Your task to perform on an android device: Search for the best rated 3d printer on Amazon. Image 0: 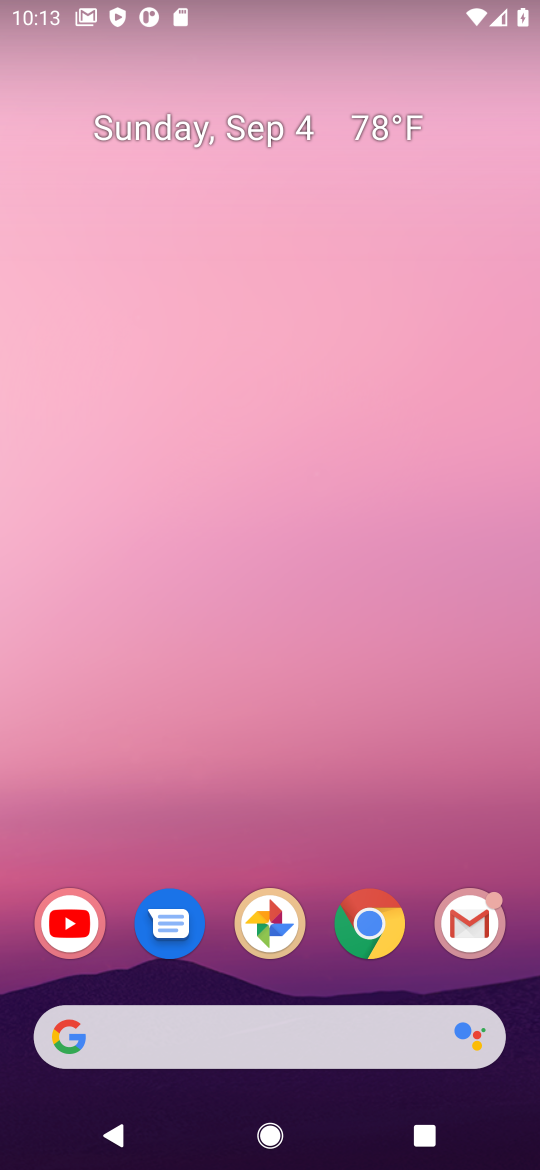
Step 0: click (350, 917)
Your task to perform on an android device: Search for the best rated 3d printer on Amazon. Image 1: 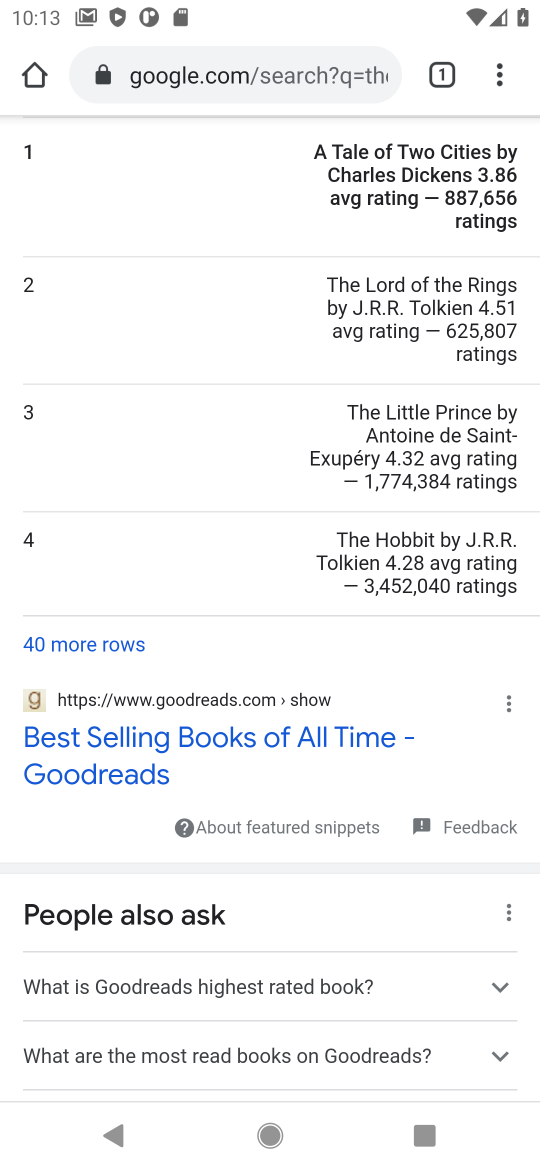
Step 1: click (204, 50)
Your task to perform on an android device: Search for the best rated 3d printer on Amazon. Image 2: 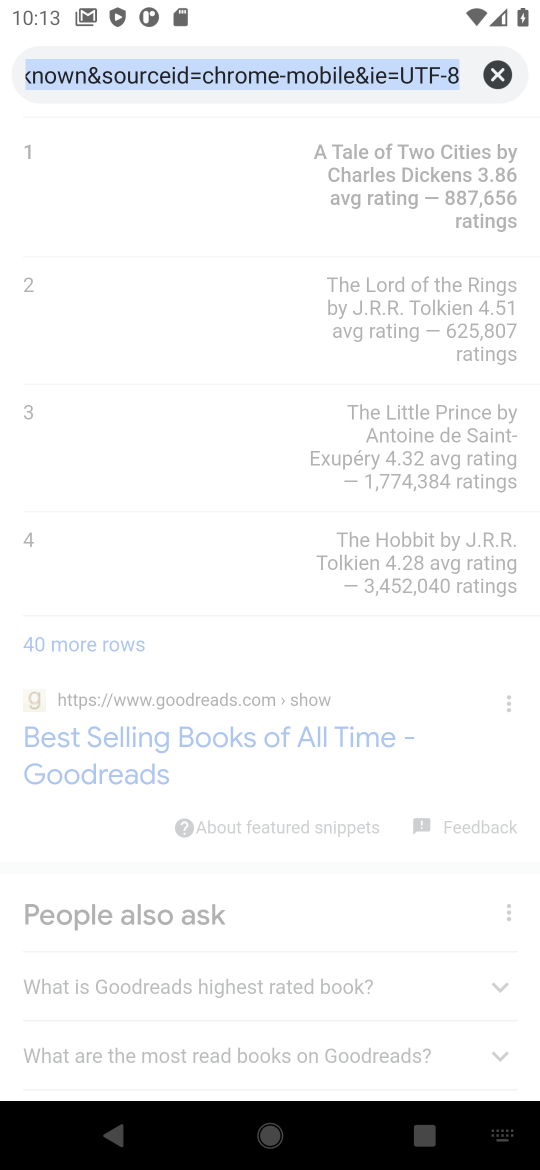
Step 2: click (491, 82)
Your task to perform on an android device: Search for the best rated 3d printer on Amazon. Image 3: 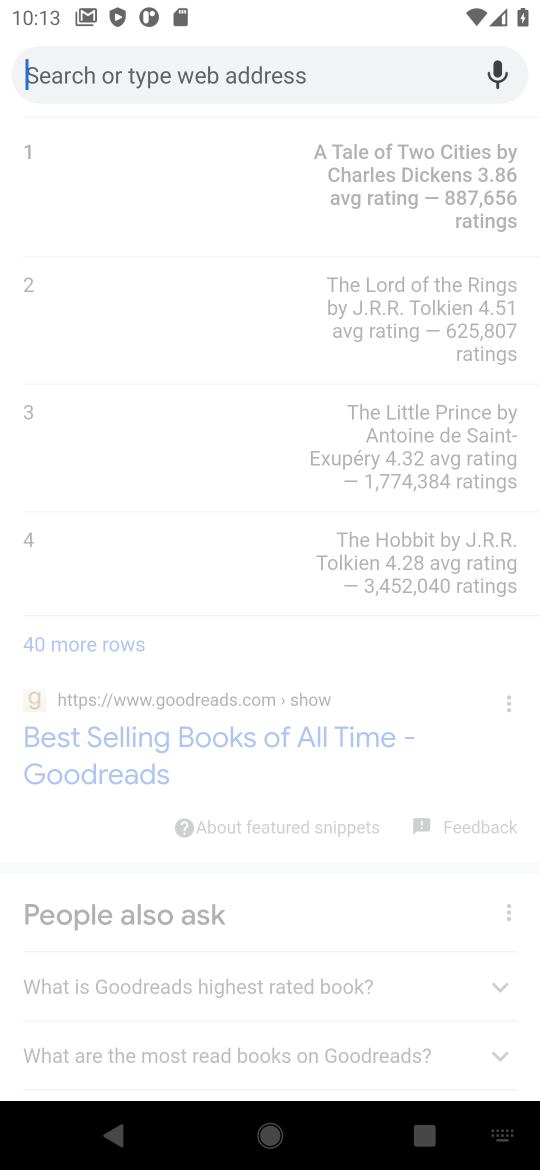
Step 3: type "the best rated 3d printer on Amazon."
Your task to perform on an android device: Search for the best rated 3d printer on Amazon. Image 4: 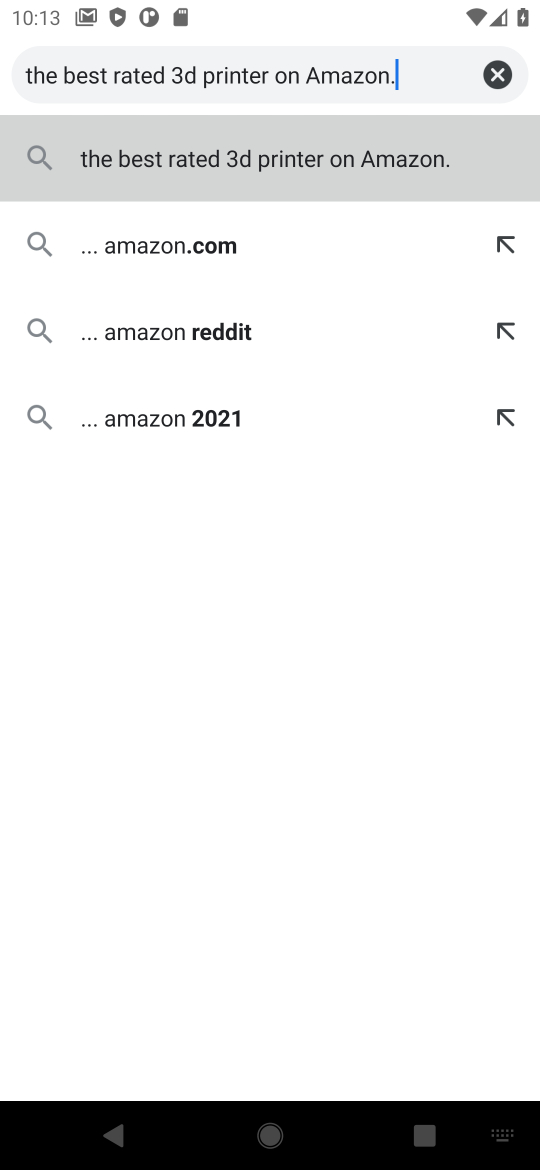
Step 4: click (277, 140)
Your task to perform on an android device: Search for the best rated 3d printer on Amazon. Image 5: 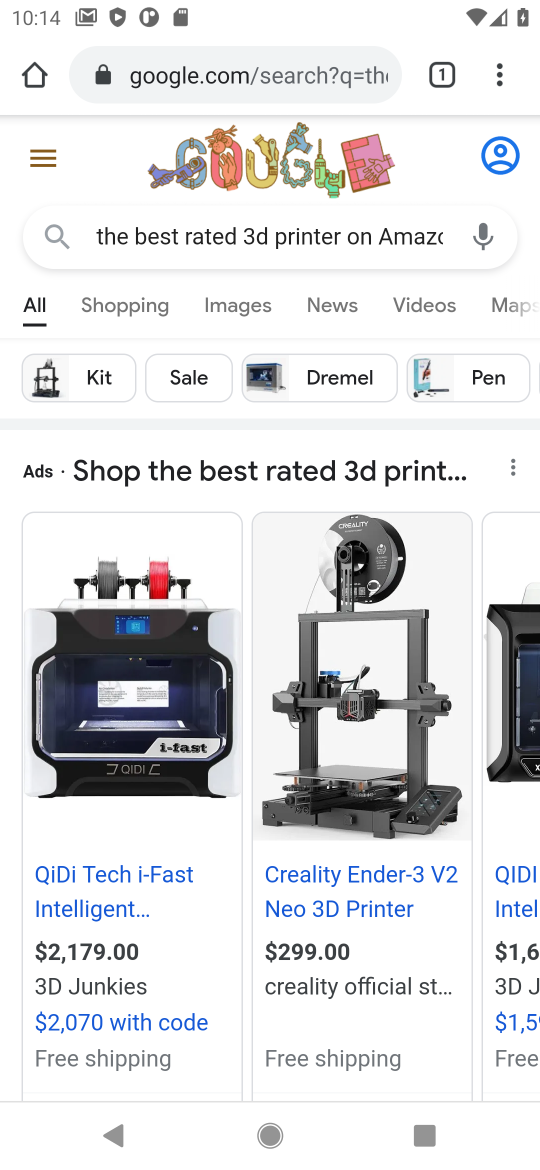
Step 5: drag from (19, 1092) to (88, 74)
Your task to perform on an android device: Search for the best rated 3d printer on Amazon. Image 6: 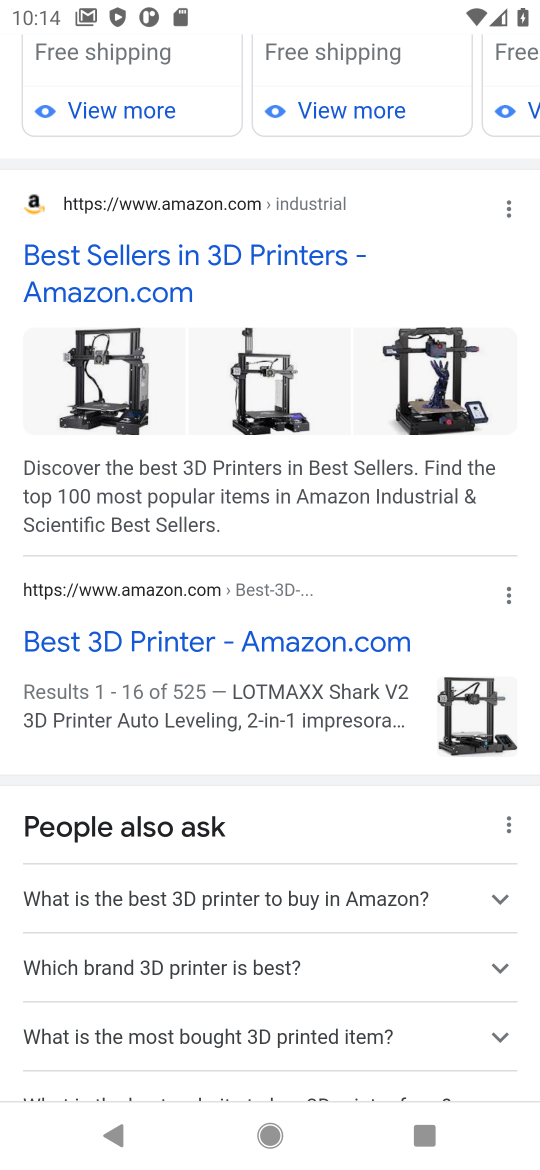
Step 6: click (252, 490)
Your task to perform on an android device: Search for the best rated 3d printer on Amazon. Image 7: 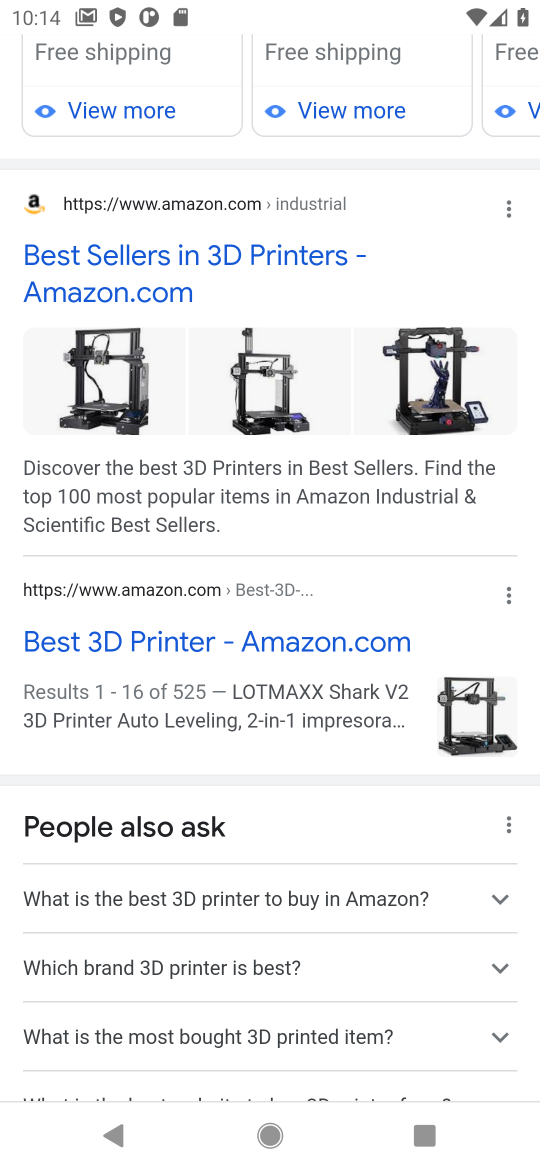
Step 7: task complete